Your task to perform on an android device: Open Chrome and go to the settings page Image 0: 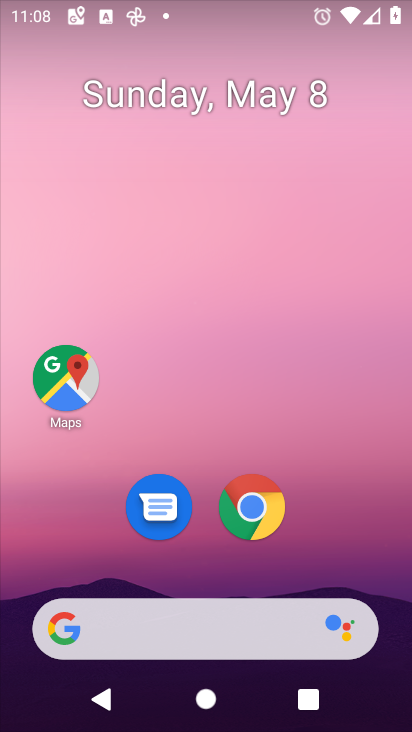
Step 0: click (242, 516)
Your task to perform on an android device: Open Chrome and go to the settings page Image 1: 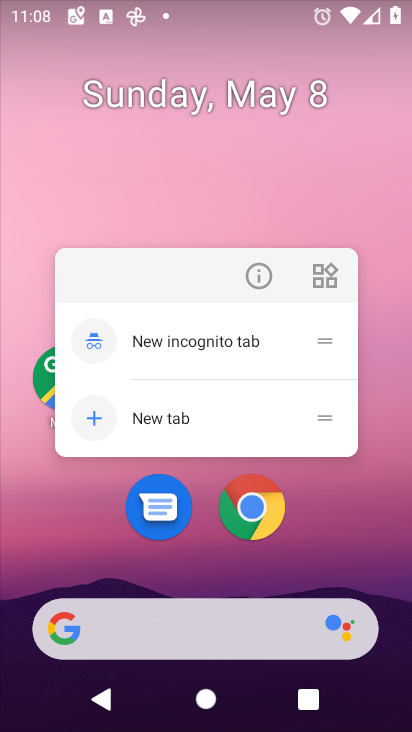
Step 1: click (232, 525)
Your task to perform on an android device: Open Chrome and go to the settings page Image 2: 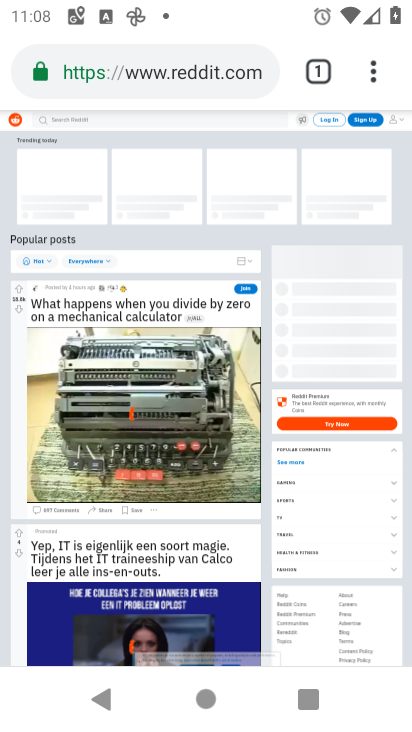
Step 2: click (376, 78)
Your task to perform on an android device: Open Chrome and go to the settings page Image 3: 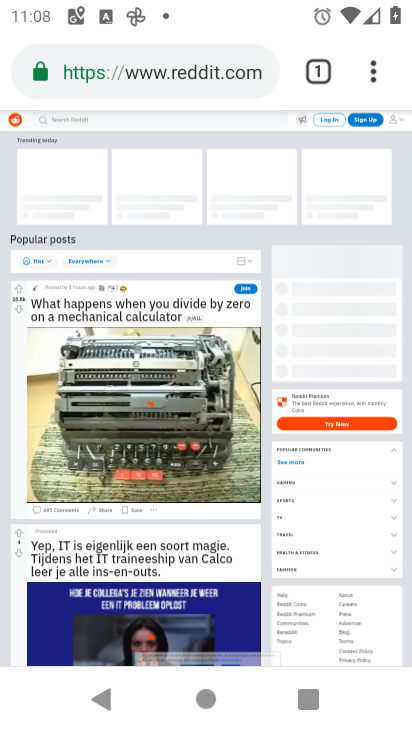
Step 3: click (376, 73)
Your task to perform on an android device: Open Chrome and go to the settings page Image 4: 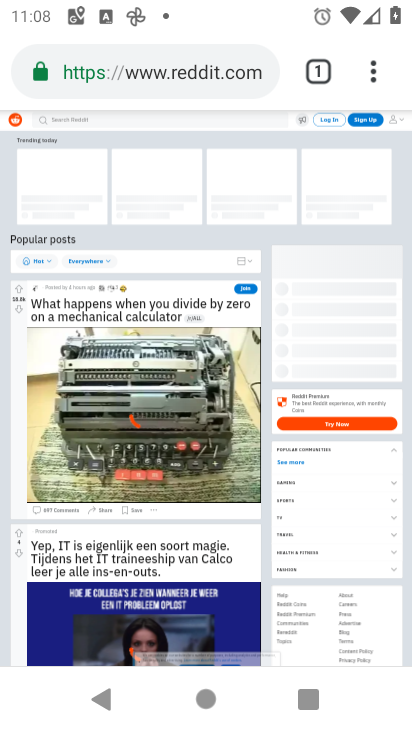
Step 4: click (371, 80)
Your task to perform on an android device: Open Chrome and go to the settings page Image 5: 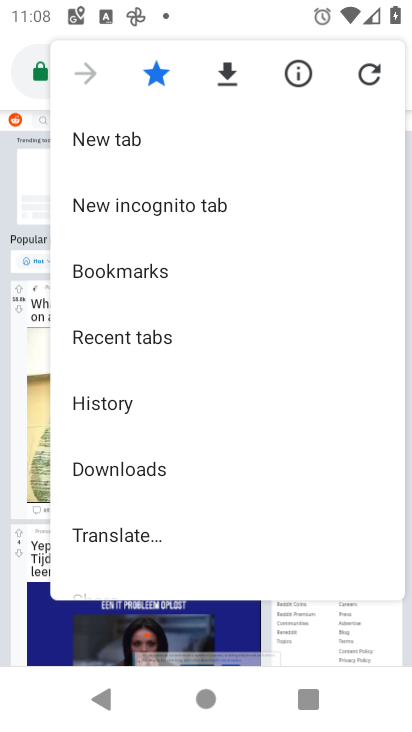
Step 5: drag from (242, 538) to (197, 145)
Your task to perform on an android device: Open Chrome and go to the settings page Image 6: 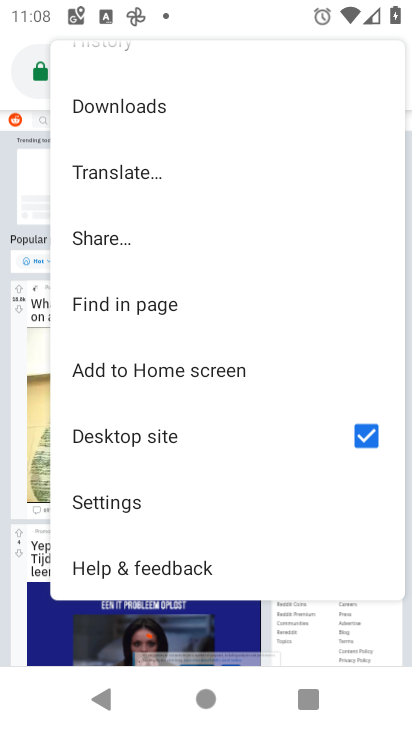
Step 6: click (126, 504)
Your task to perform on an android device: Open Chrome and go to the settings page Image 7: 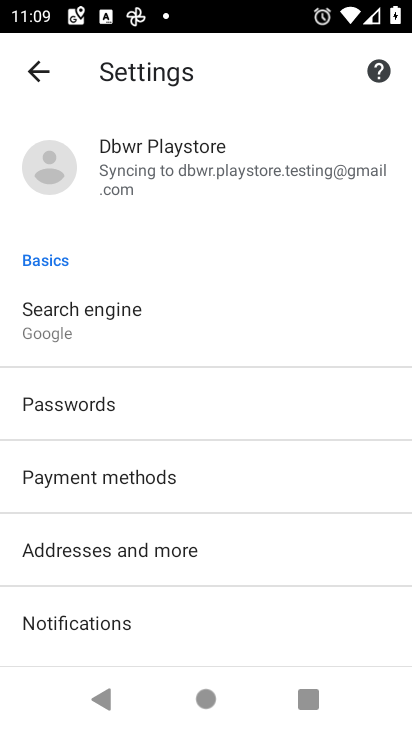
Step 7: task complete